Your task to perform on an android device: turn on the 12-hour format for clock Image 0: 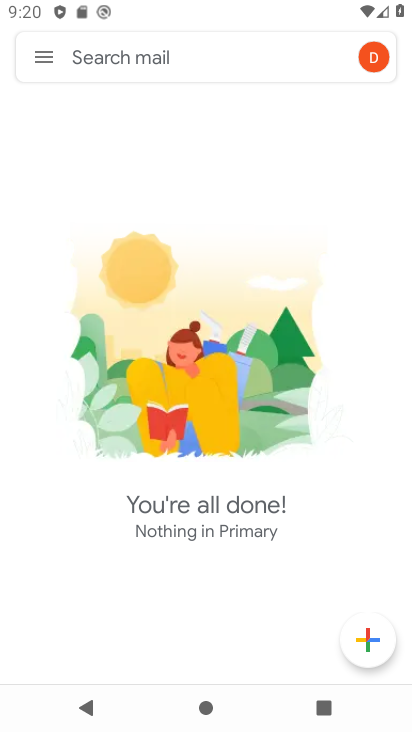
Step 0: press home button
Your task to perform on an android device: turn on the 12-hour format for clock Image 1: 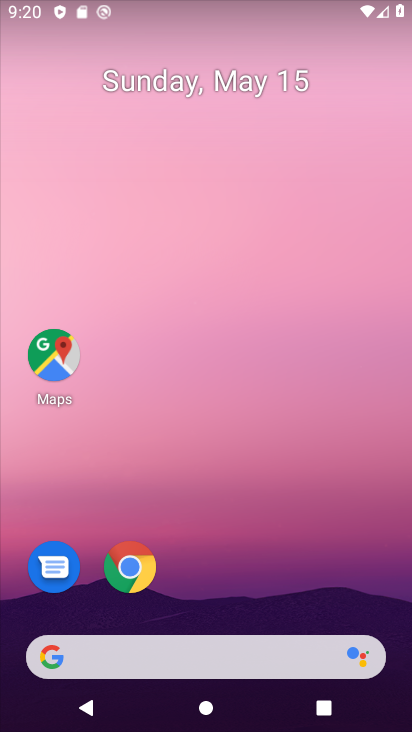
Step 1: drag from (272, 578) to (255, 45)
Your task to perform on an android device: turn on the 12-hour format for clock Image 2: 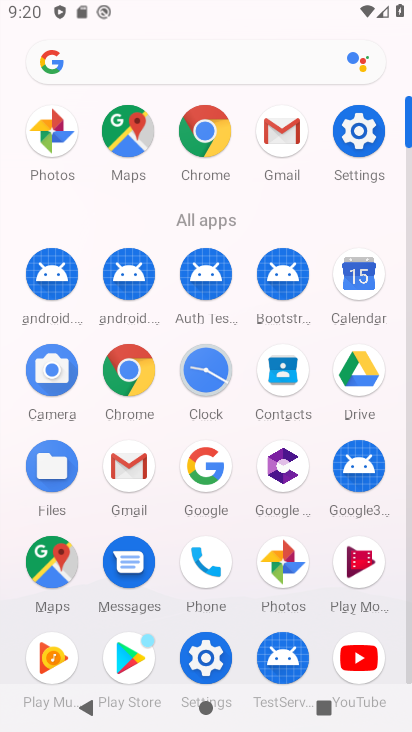
Step 2: click (198, 370)
Your task to perform on an android device: turn on the 12-hour format for clock Image 3: 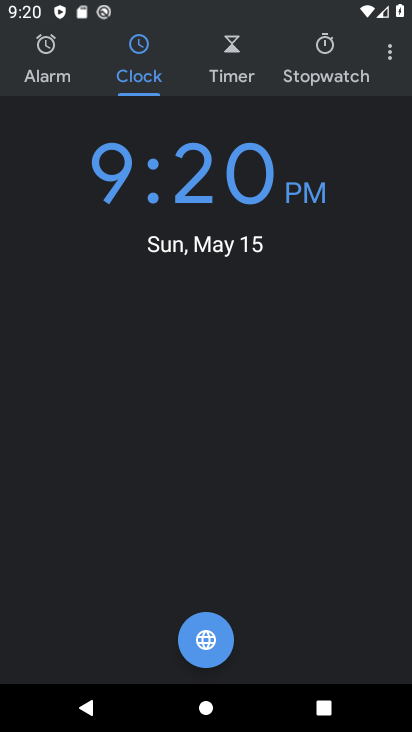
Step 3: click (391, 58)
Your task to perform on an android device: turn on the 12-hour format for clock Image 4: 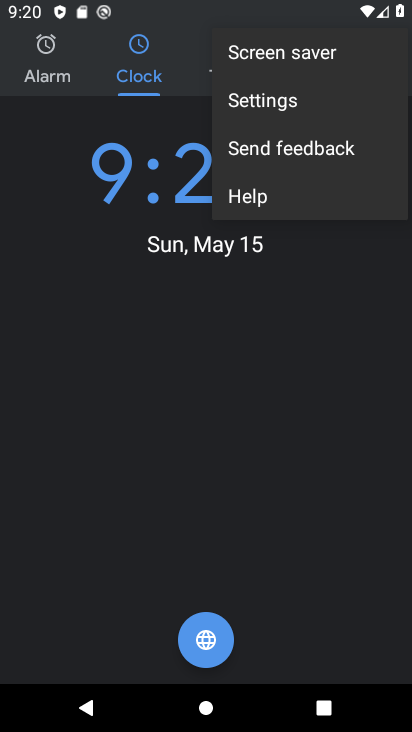
Step 4: click (283, 96)
Your task to perform on an android device: turn on the 12-hour format for clock Image 5: 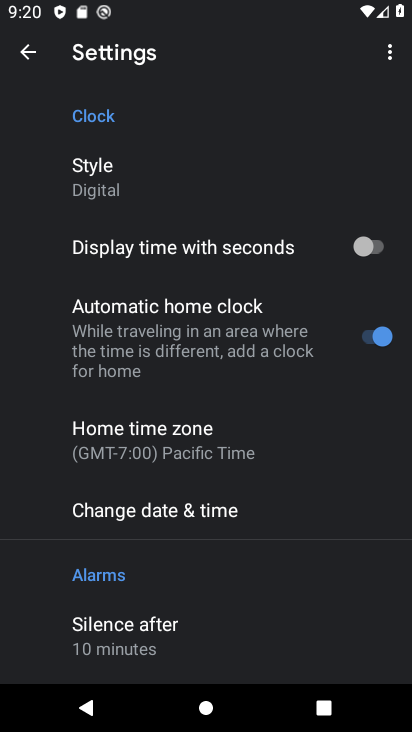
Step 5: drag from (269, 584) to (248, 198)
Your task to perform on an android device: turn on the 12-hour format for clock Image 6: 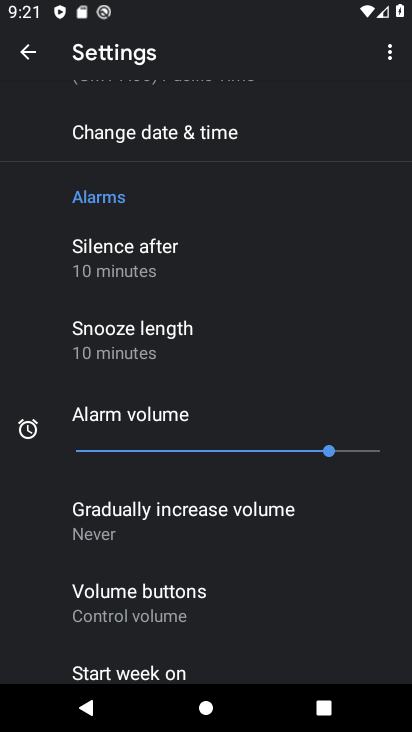
Step 6: click (250, 134)
Your task to perform on an android device: turn on the 12-hour format for clock Image 7: 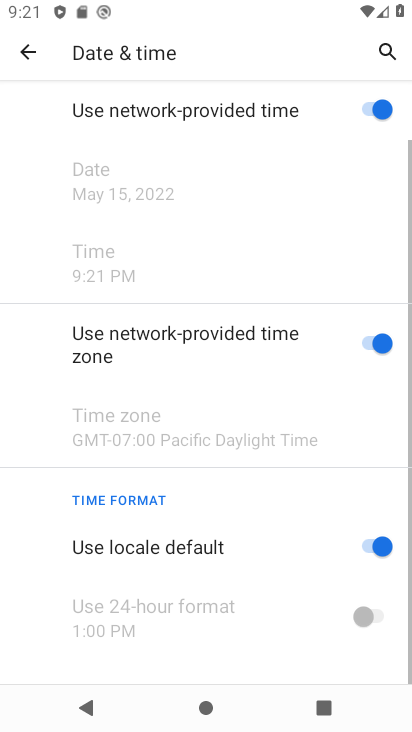
Step 7: task complete